Your task to perform on an android device: Add "sony triple a" to the cart on costco Image 0: 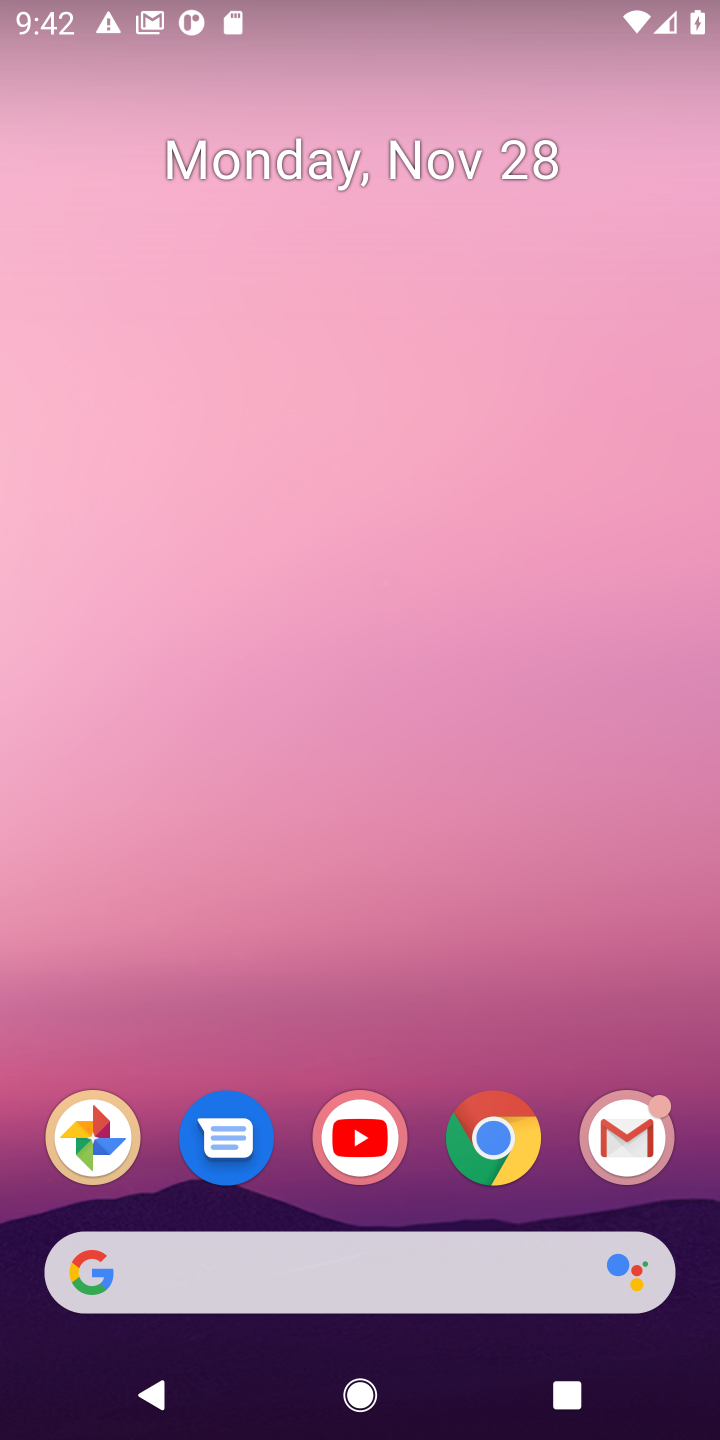
Step 0: click (499, 1155)
Your task to perform on an android device: Add "sony triple a" to the cart on costco Image 1: 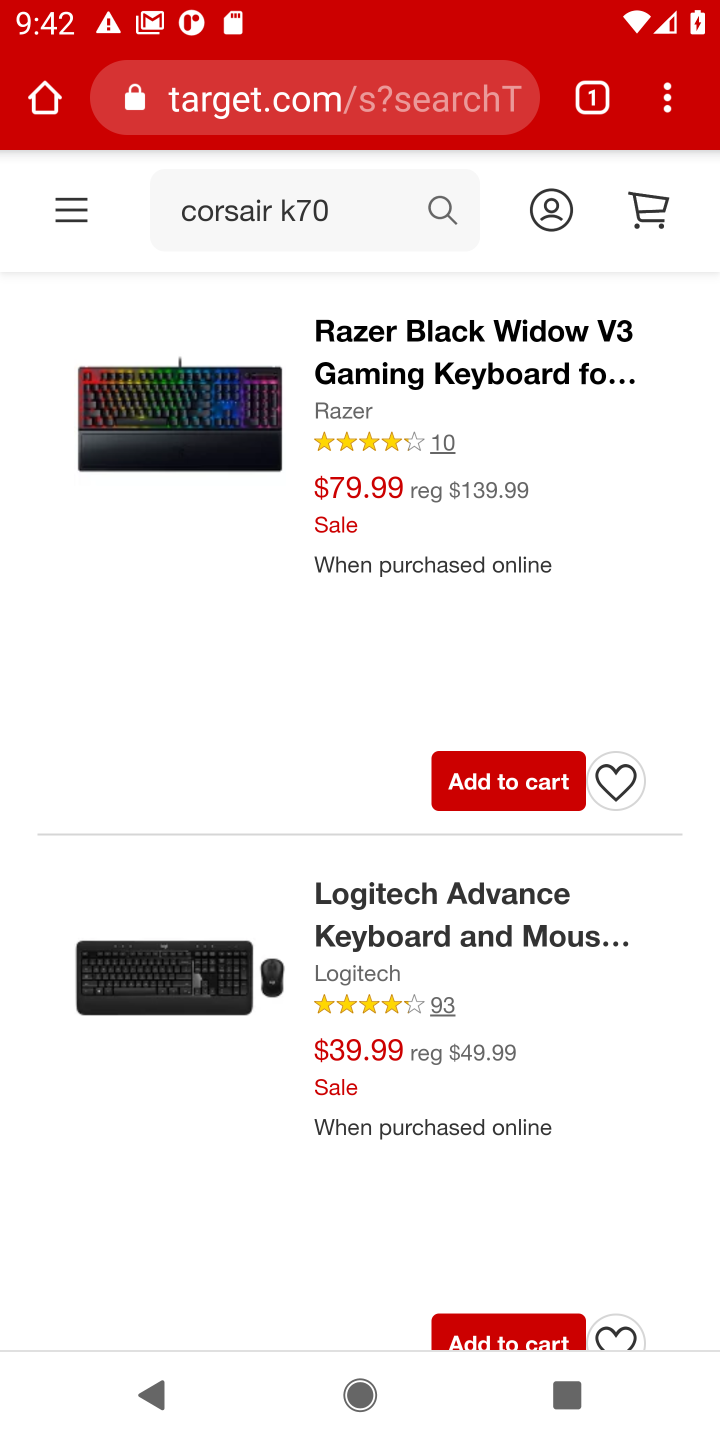
Step 1: click (307, 92)
Your task to perform on an android device: Add "sony triple a" to the cart on costco Image 2: 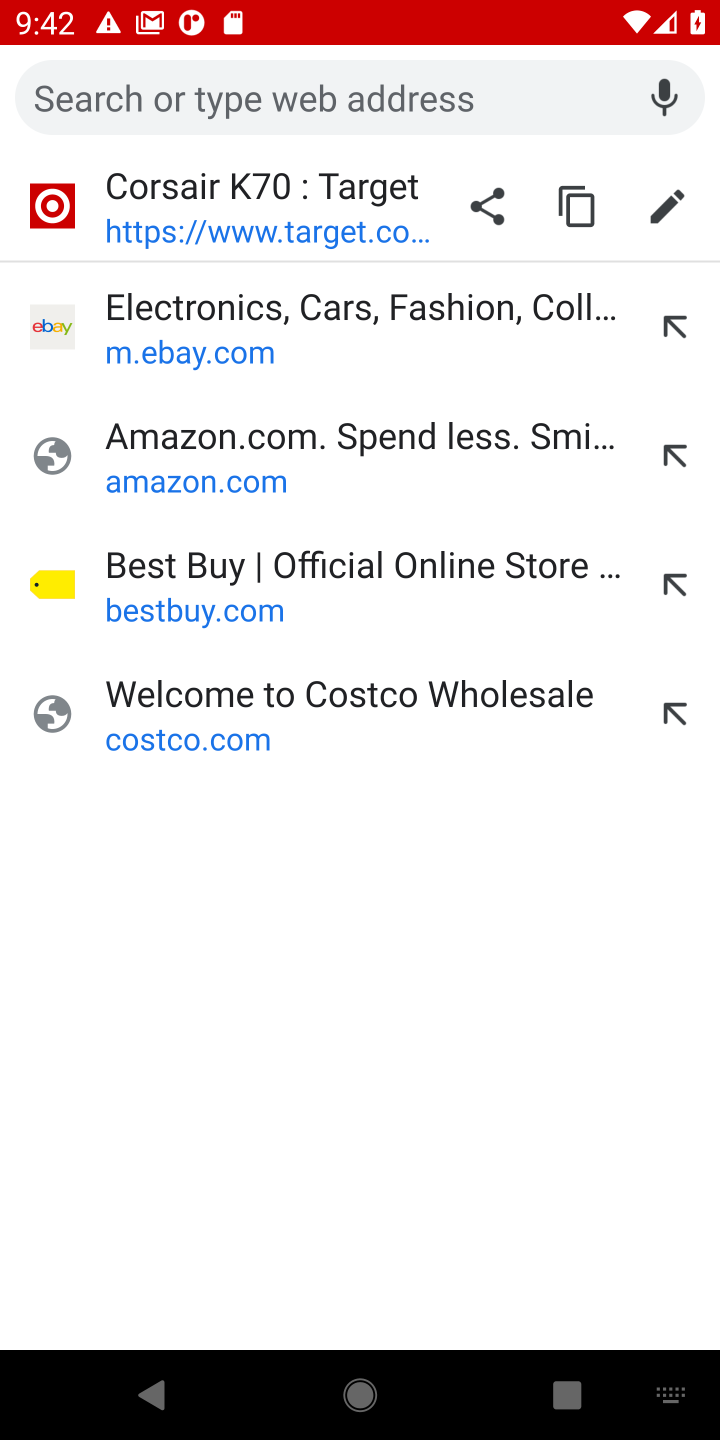
Step 2: click (143, 720)
Your task to perform on an android device: Add "sony triple a" to the cart on costco Image 3: 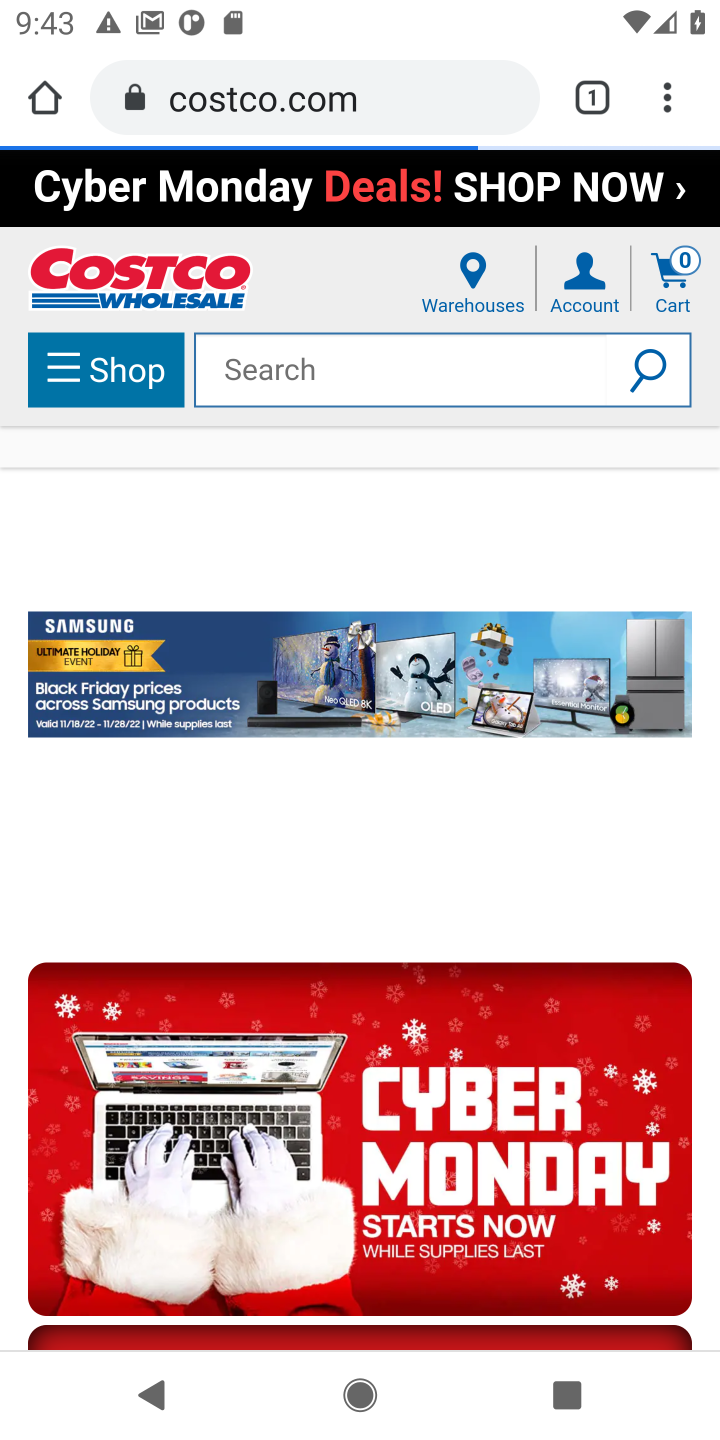
Step 3: click (280, 360)
Your task to perform on an android device: Add "sony triple a" to the cart on costco Image 4: 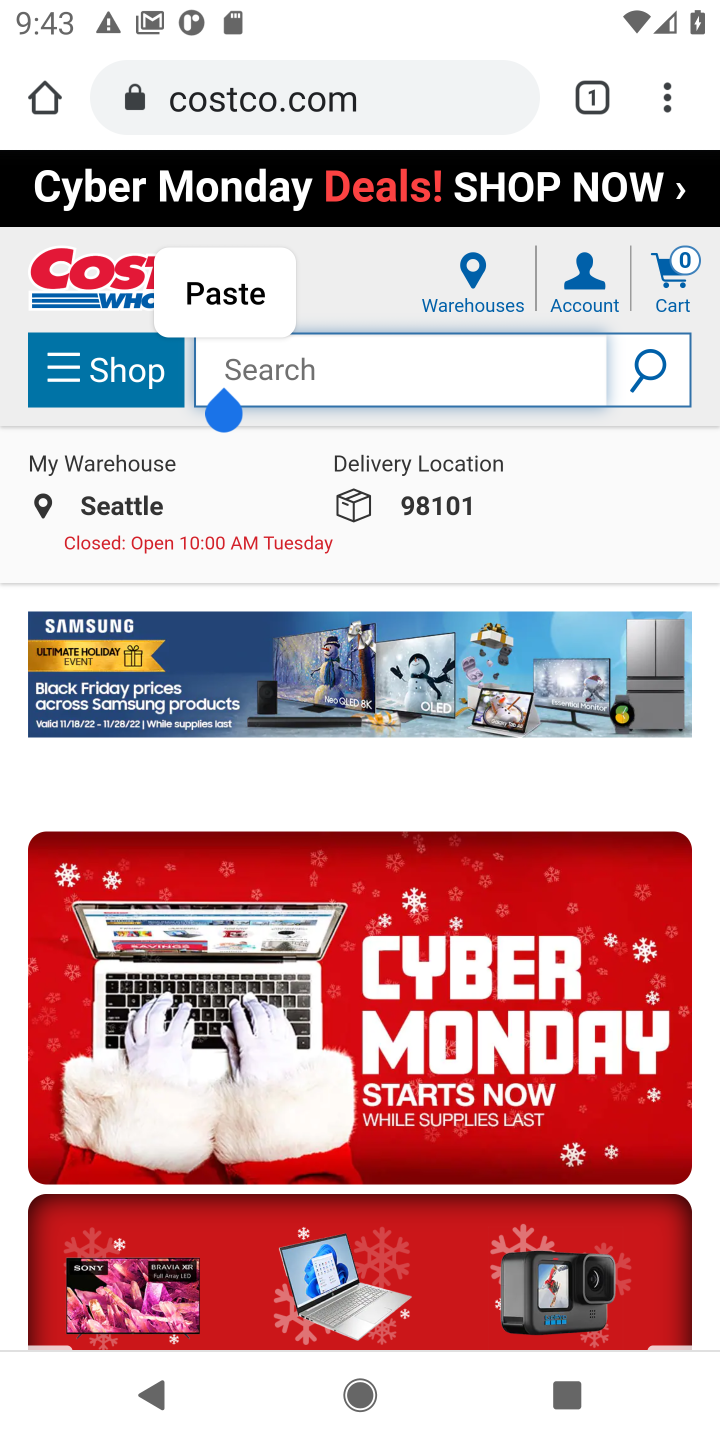
Step 4: type "sony triple a"
Your task to perform on an android device: Add "sony triple a" to the cart on costco Image 5: 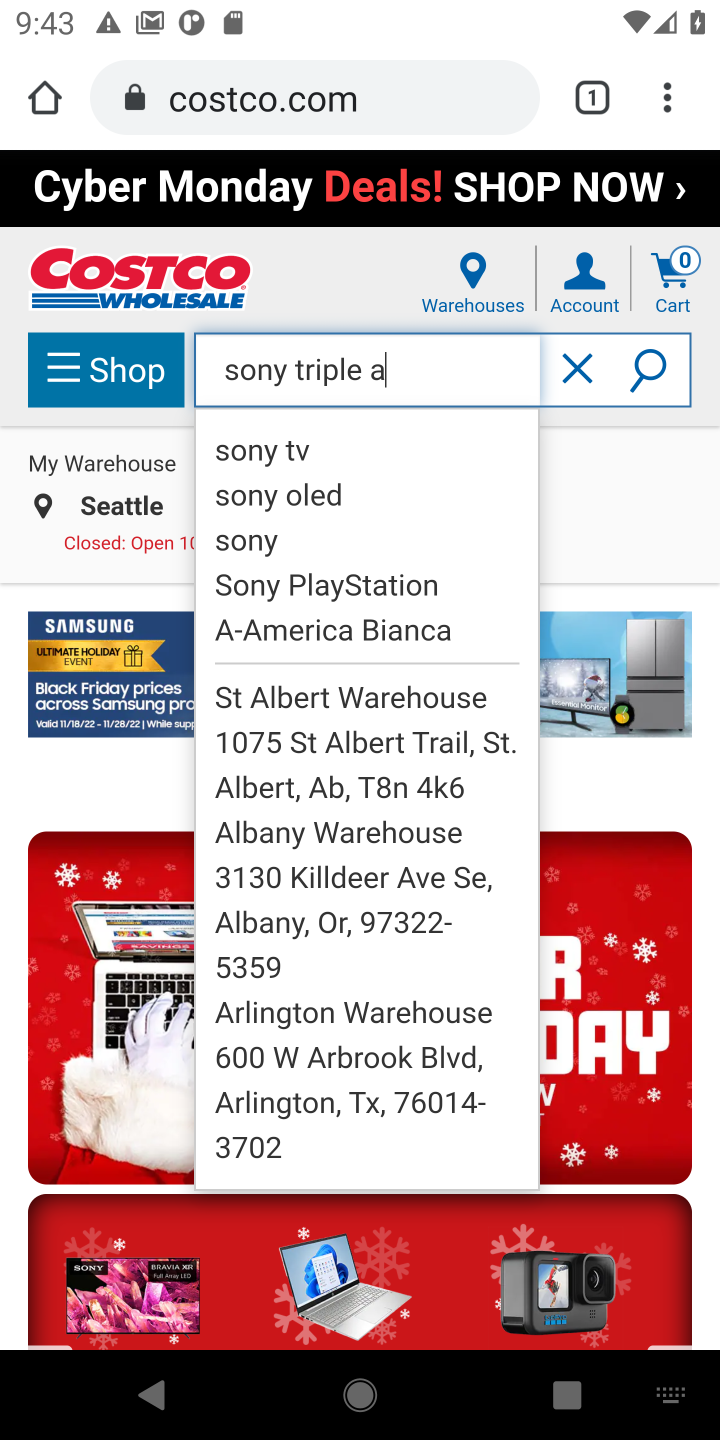
Step 5: click (654, 366)
Your task to perform on an android device: Add "sony triple a" to the cart on costco Image 6: 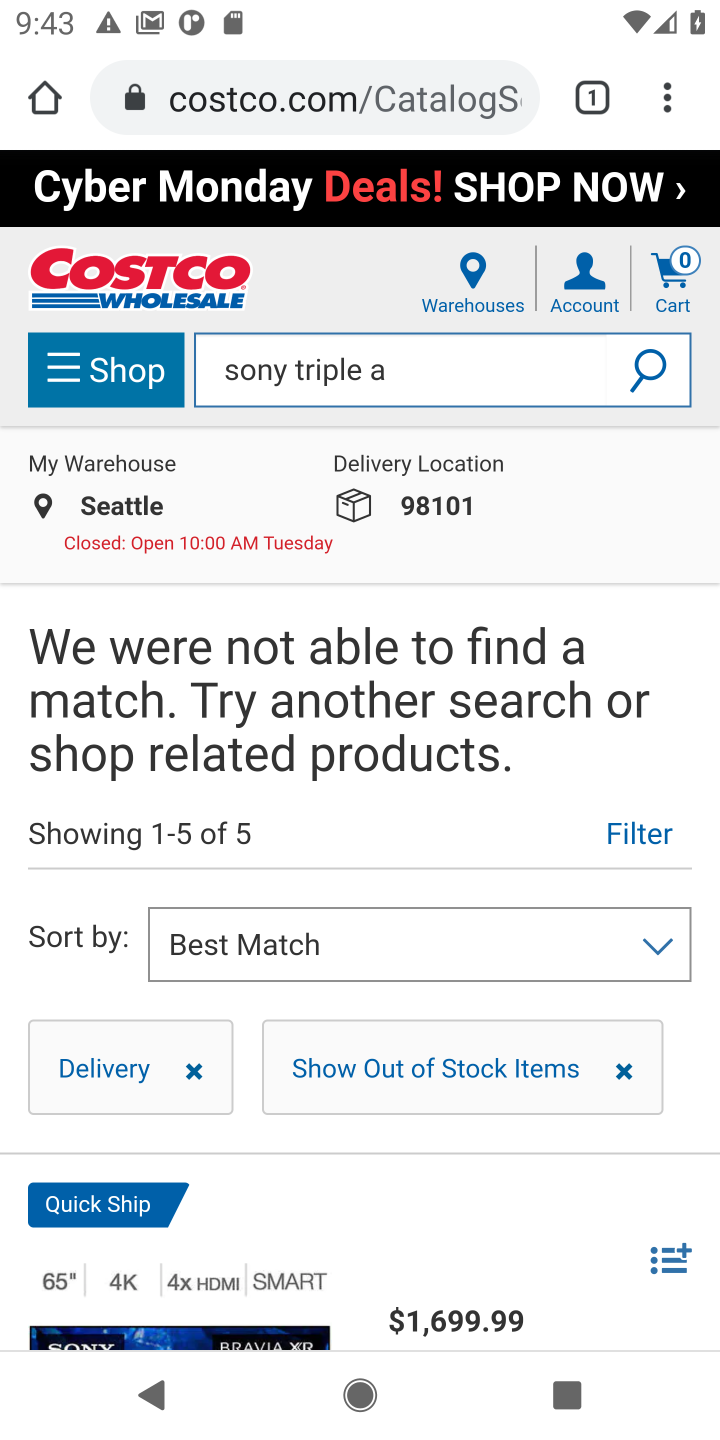
Step 6: task complete